Your task to perform on an android device: Open display settings Image 0: 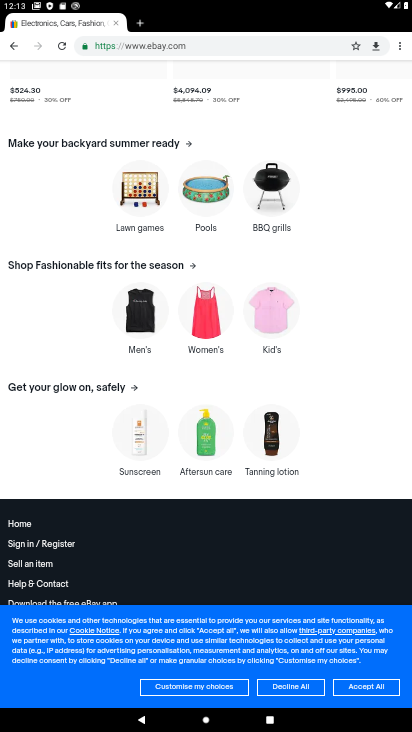
Step 0: press home button
Your task to perform on an android device: Open display settings Image 1: 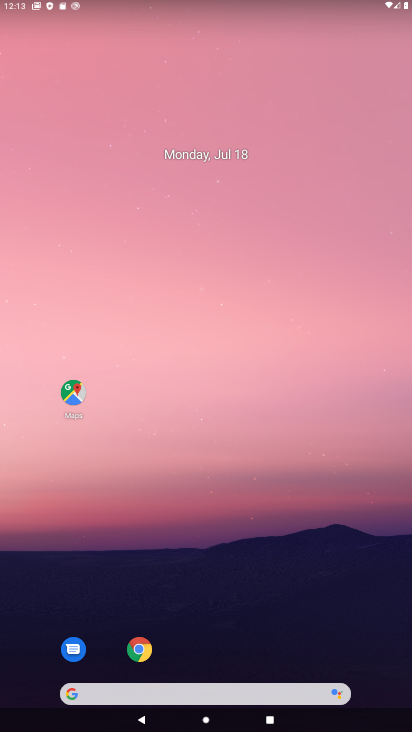
Step 1: drag from (386, 643) to (357, 189)
Your task to perform on an android device: Open display settings Image 2: 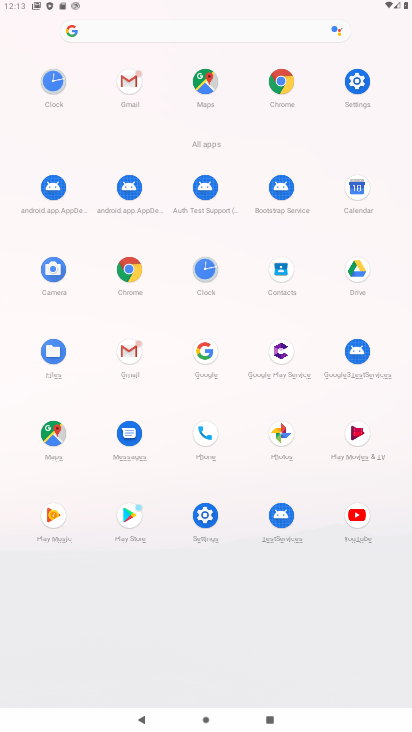
Step 2: click (204, 517)
Your task to perform on an android device: Open display settings Image 3: 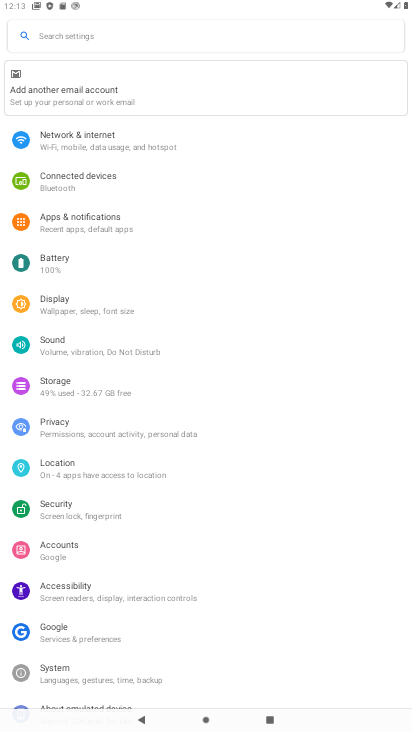
Step 3: click (59, 306)
Your task to perform on an android device: Open display settings Image 4: 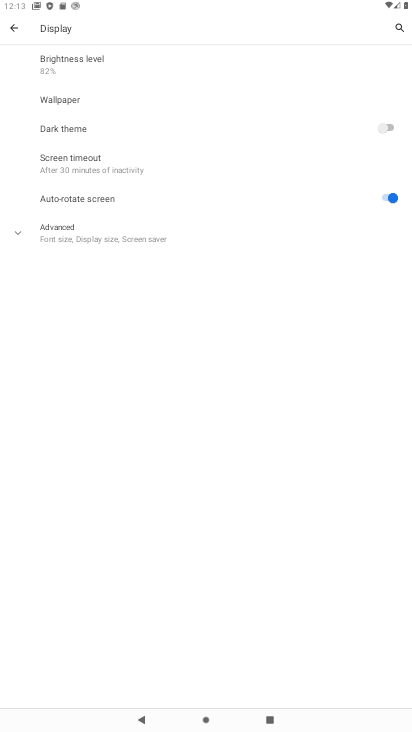
Step 4: click (18, 233)
Your task to perform on an android device: Open display settings Image 5: 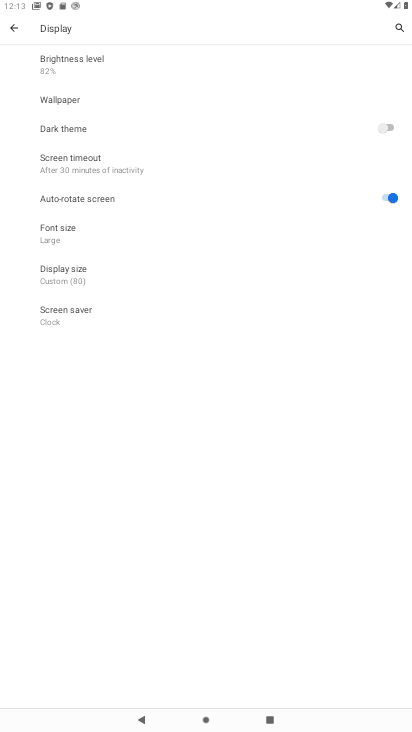
Step 5: task complete